Your task to perform on an android device: See recent photos Image 0: 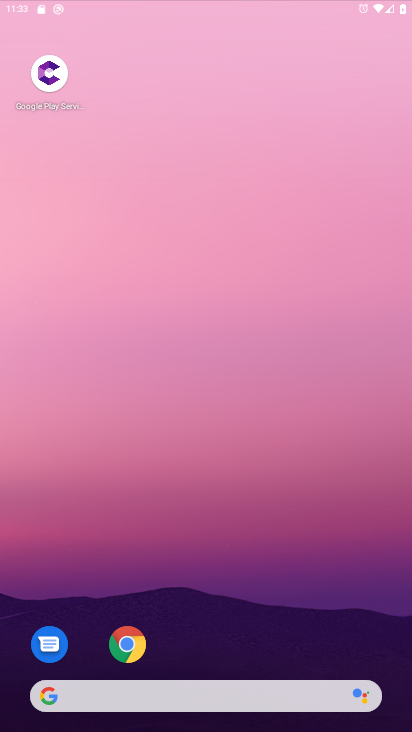
Step 0: click (284, 55)
Your task to perform on an android device: See recent photos Image 1: 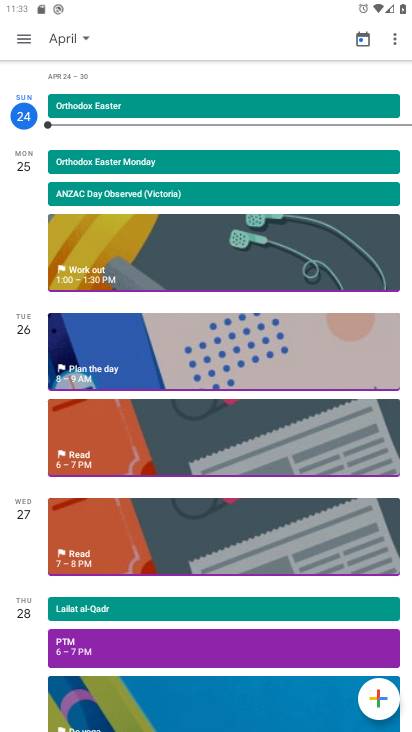
Step 1: press home button
Your task to perform on an android device: See recent photos Image 2: 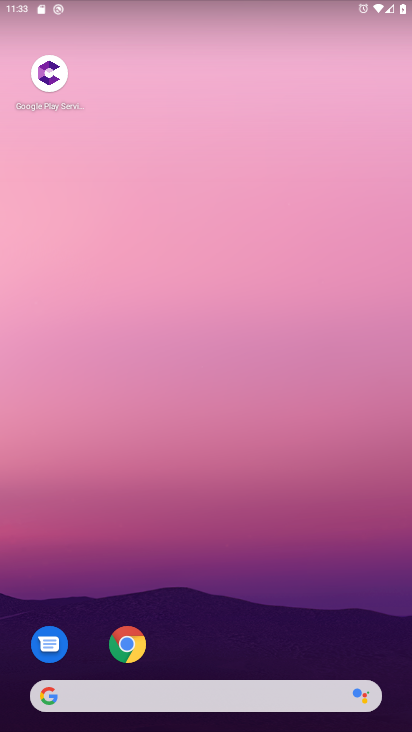
Step 2: drag from (206, 626) to (390, 55)
Your task to perform on an android device: See recent photos Image 3: 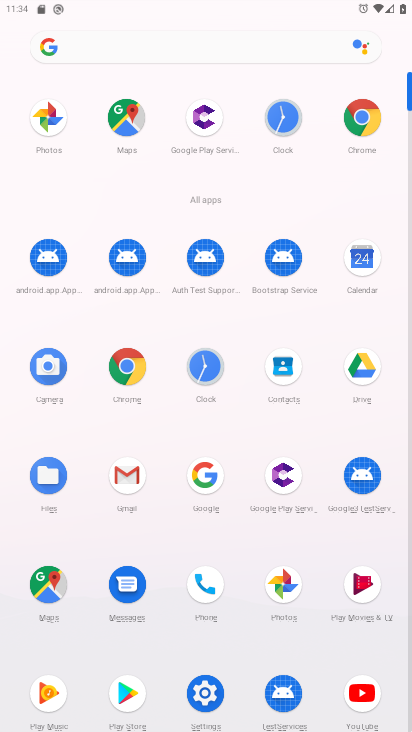
Step 3: click (280, 590)
Your task to perform on an android device: See recent photos Image 4: 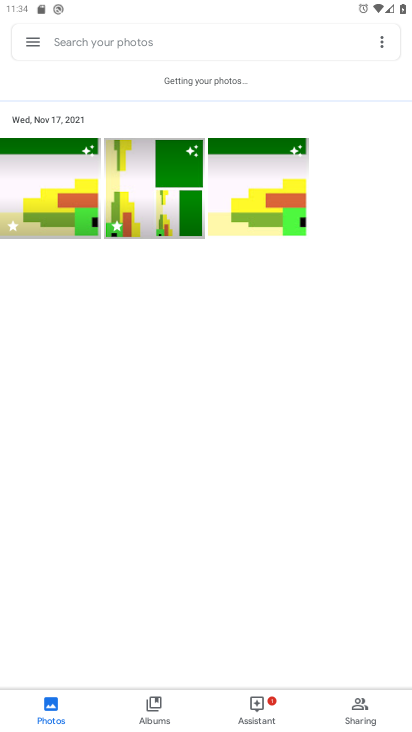
Step 4: click (70, 171)
Your task to perform on an android device: See recent photos Image 5: 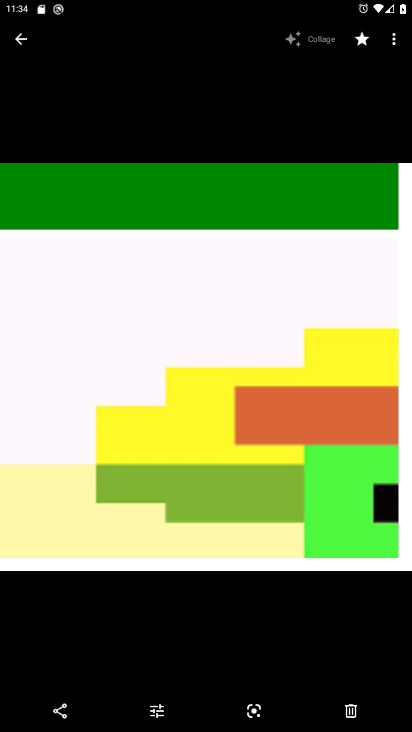
Step 5: task complete